Your task to perform on an android device: turn smart compose on in the gmail app Image 0: 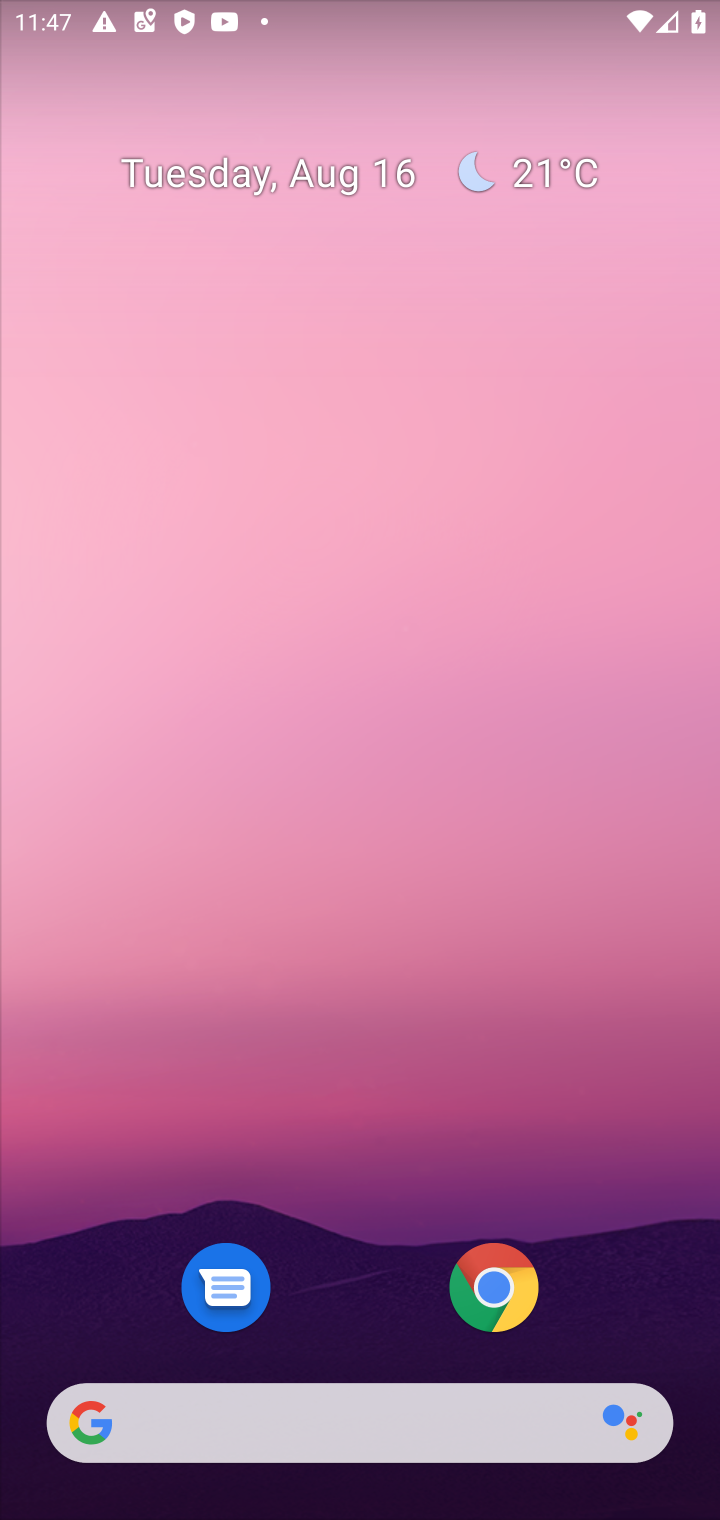
Step 0: drag from (639, 1330) to (556, 273)
Your task to perform on an android device: turn smart compose on in the gmail app Image 1: 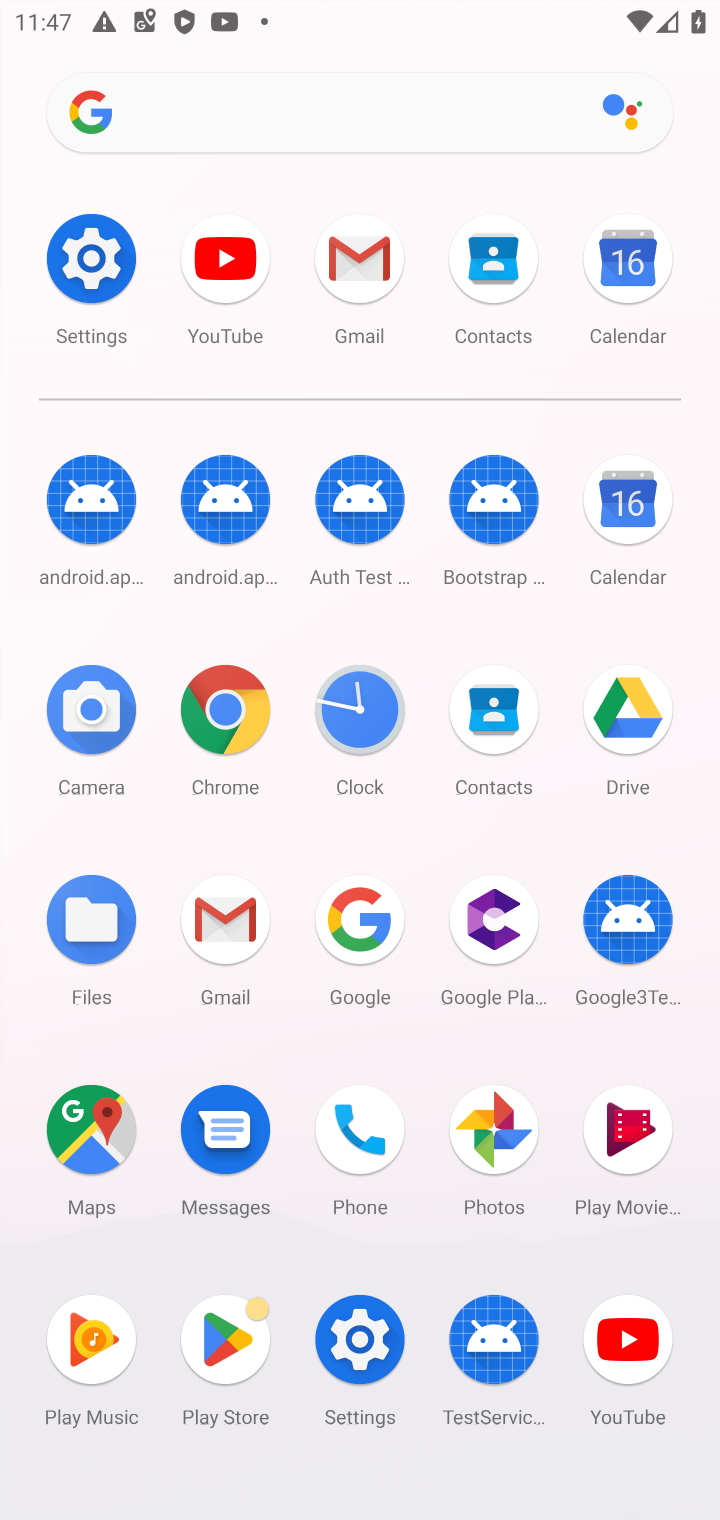
Step 1: click (223, 916)
Your task to perform on an android device: turn smart compose on in the gmail app Image 2: 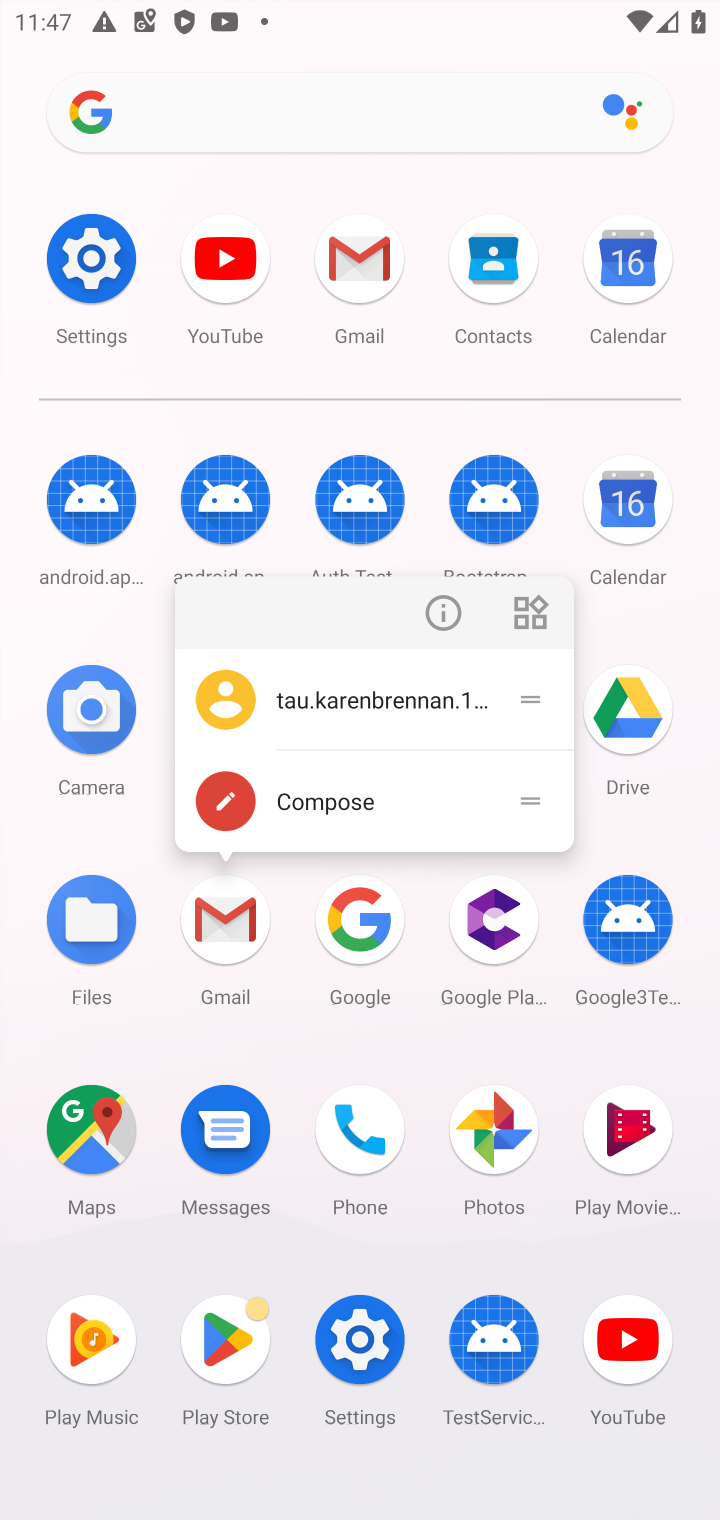
Step 2: click (224, 919)
Your task to perform on an android device: turn smart compose on in the gmail app Image 3: 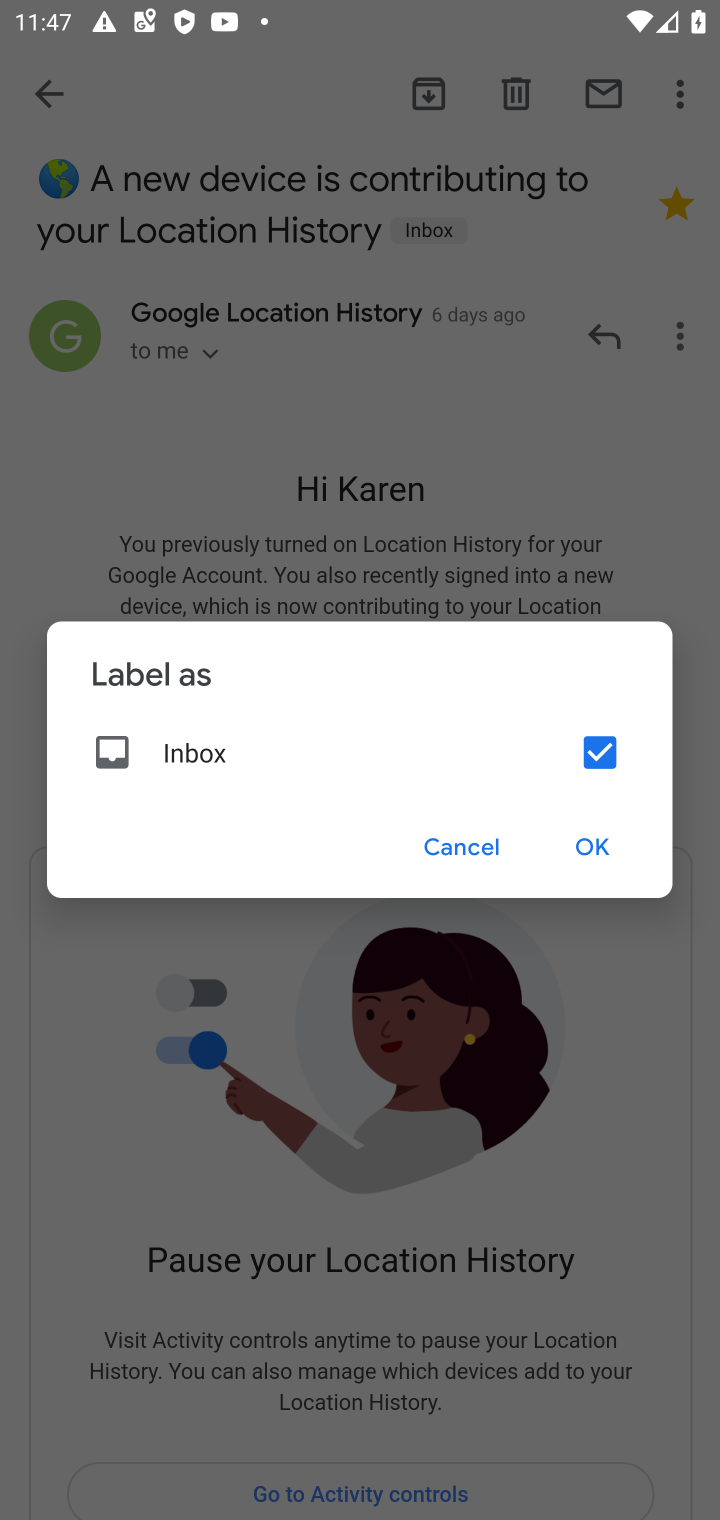
Step 3: click (464, 835)
Your task to perform on an android device: turn smart compose on in the gmail app Image 4: 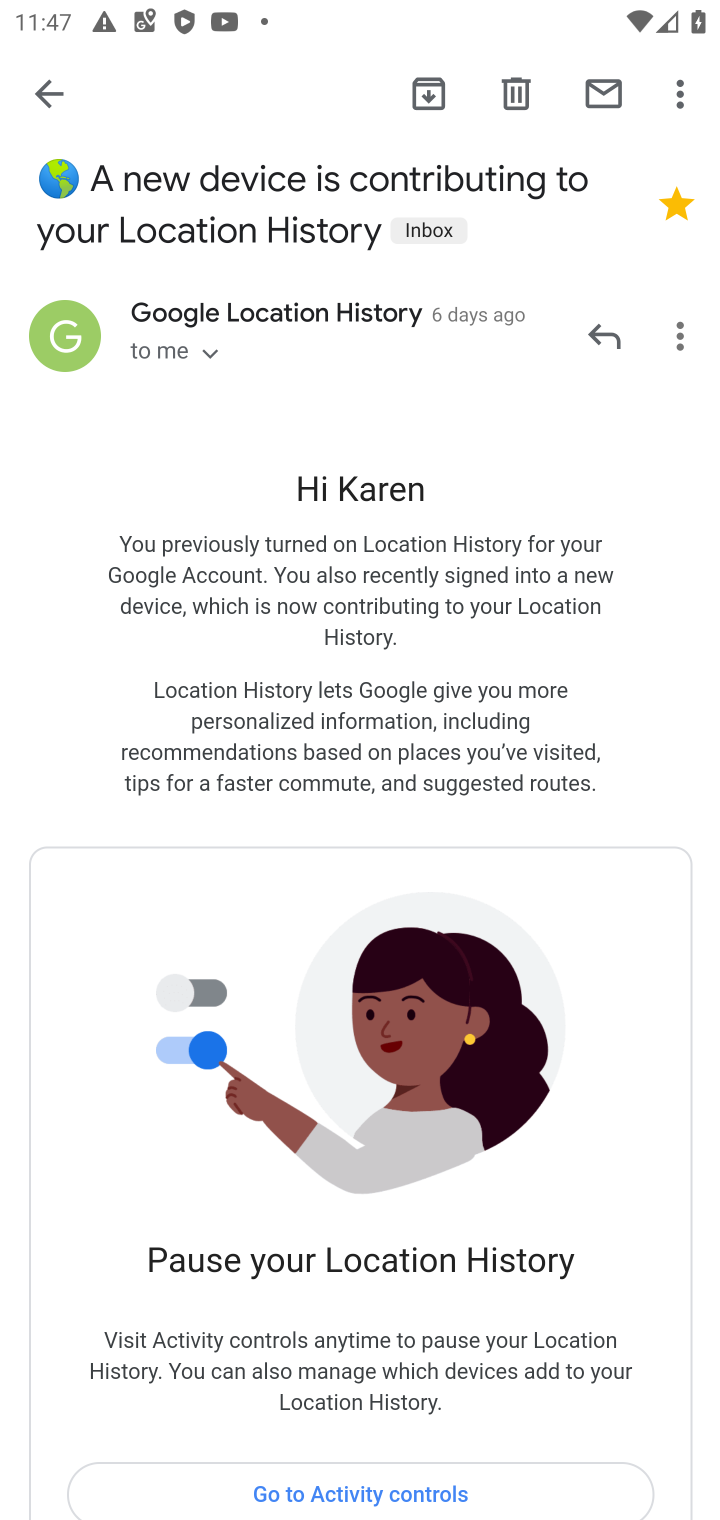
Step 4: press back button
Your task to perform on an android device: turn smart compose on in the gmail app Image 5: 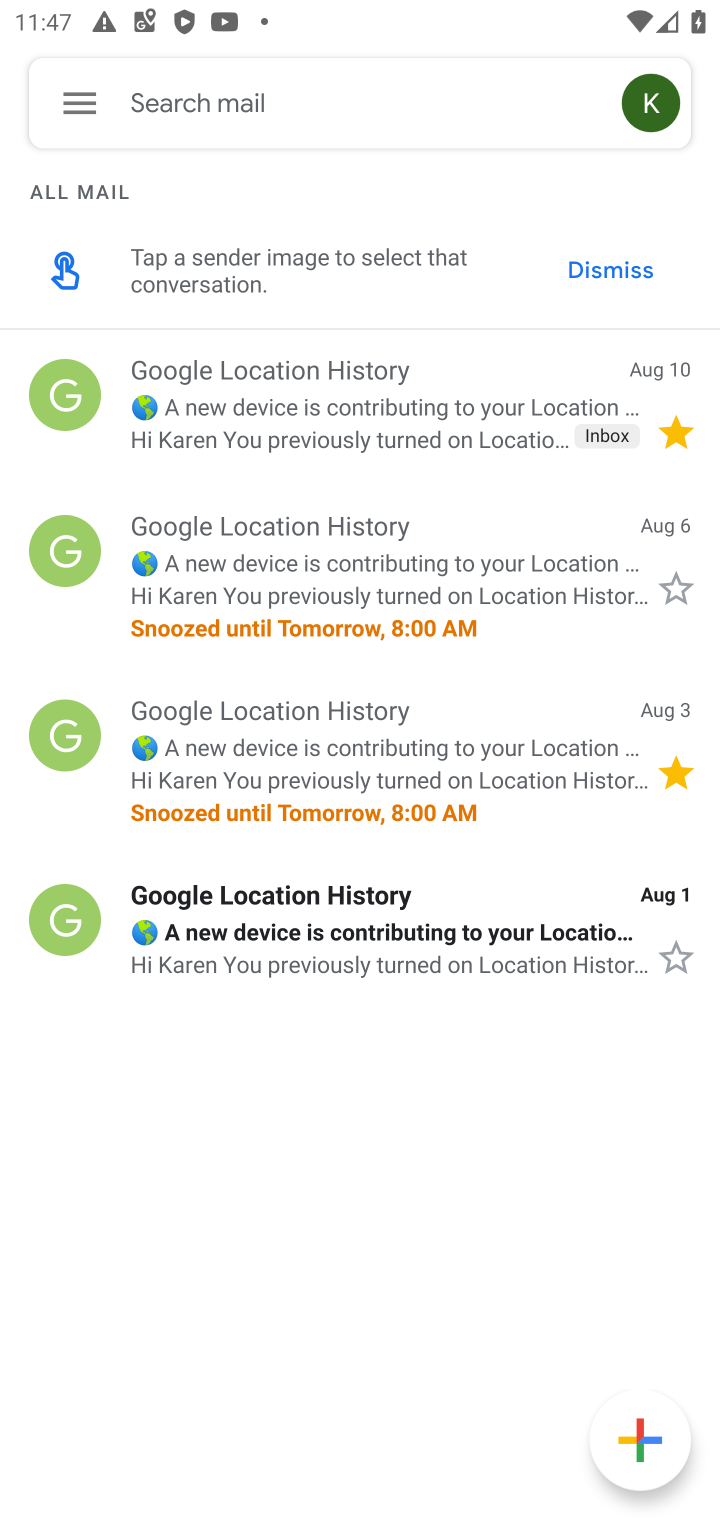
Step 5: click (81, 121)
Your task to perform on an android device: turn smart compose on in the gmail app Image 6: 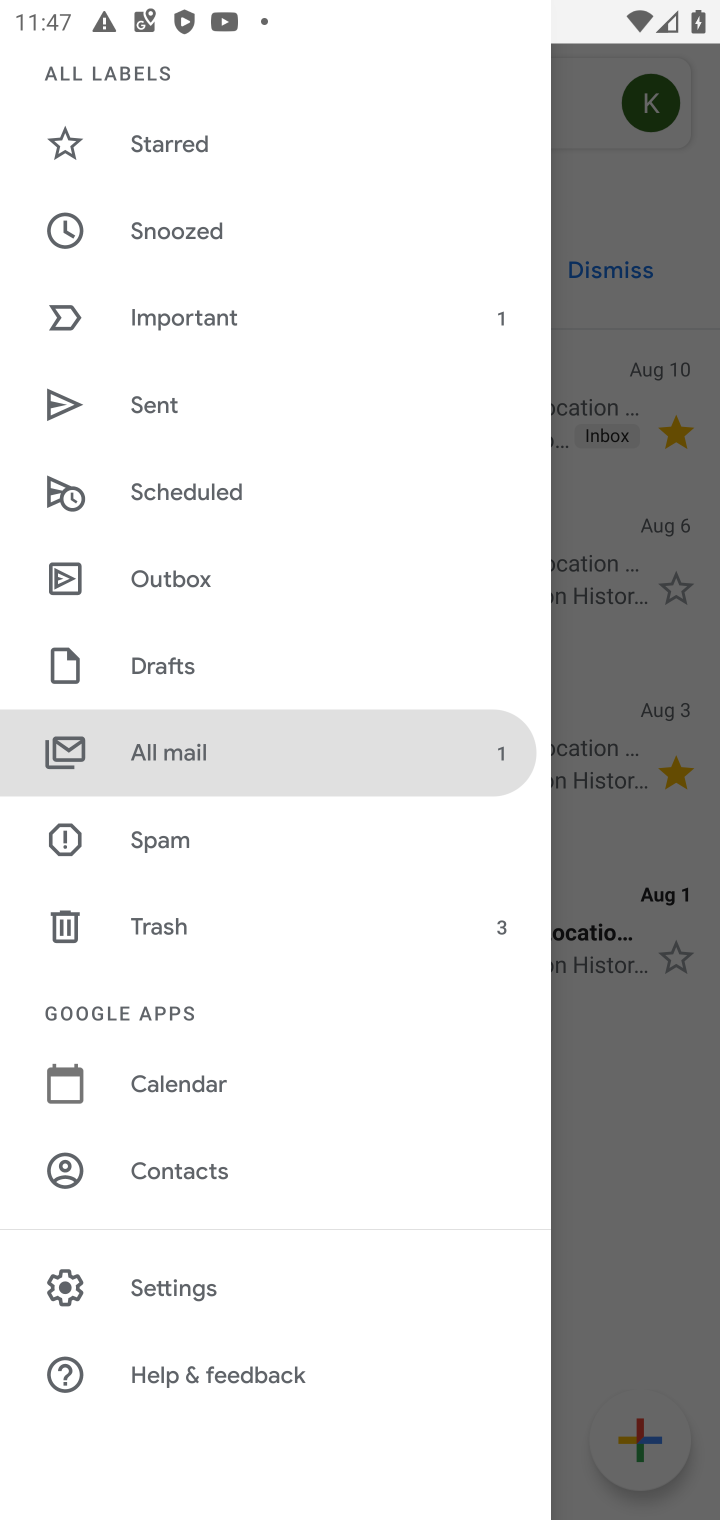
Step 6: click (162, 1295)
Your task to perform on an android device: turn smart compose on in the gmail app Image 7: 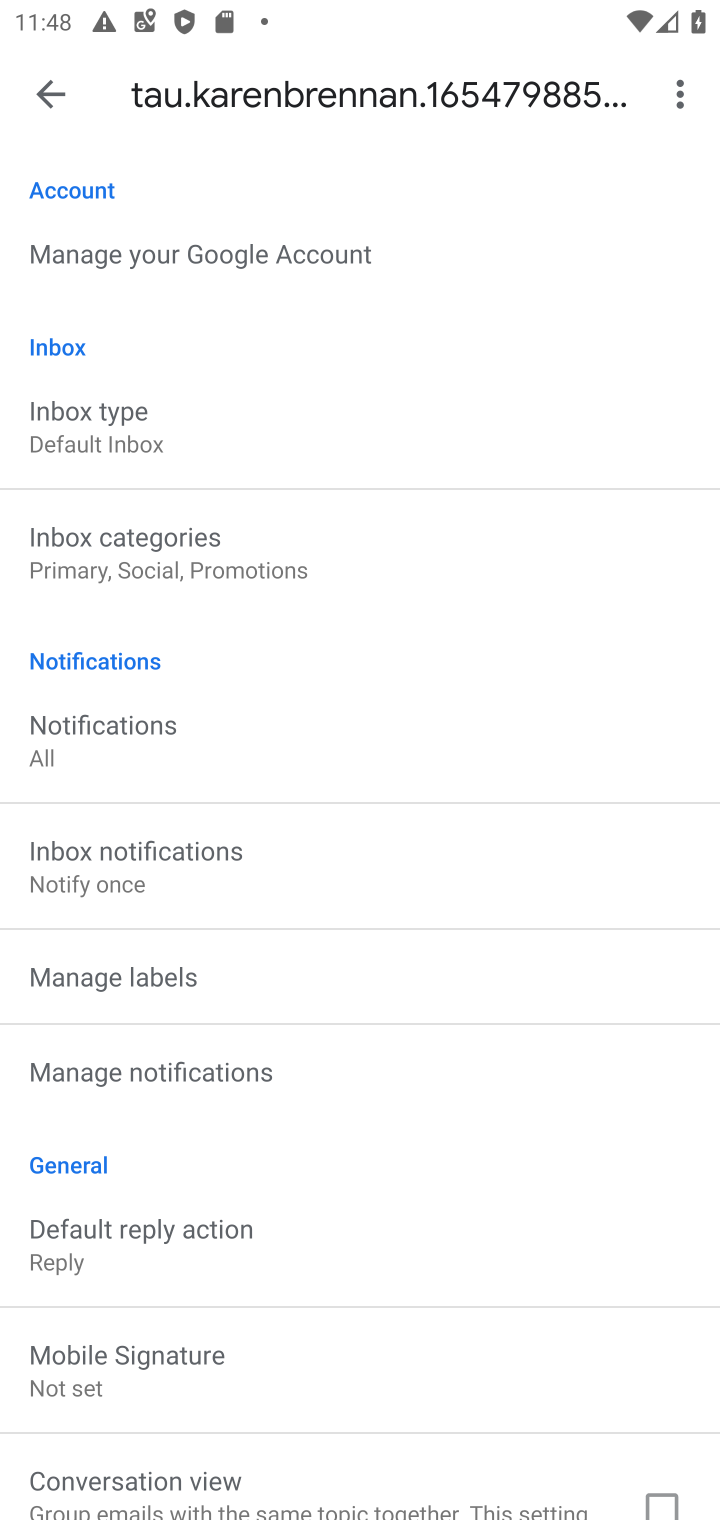
Step 7: task complete